Your task to perform on an android device: check storage Image 0: 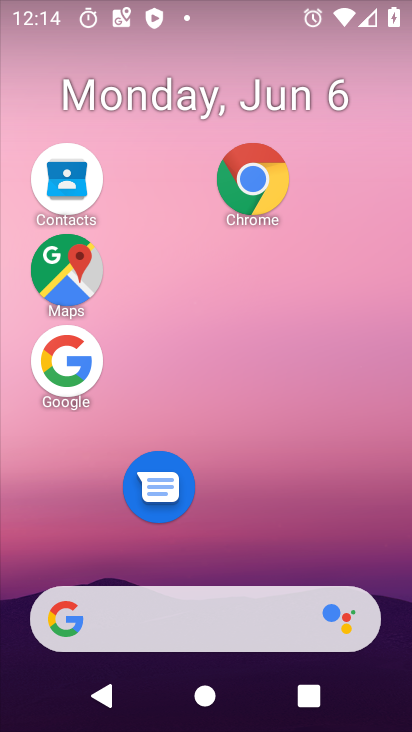
Step 0: drag from (266, 608) to (270, 105)
Your task to perform on an android device: check storage Image 1: 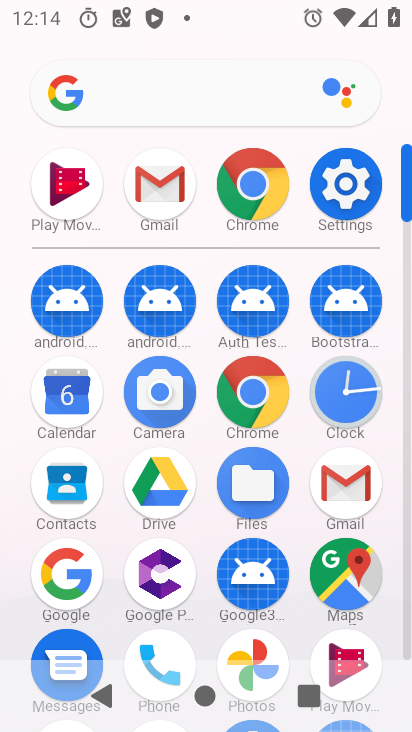
Step 1: drag from (282, 511) to (252, 301)
Your task to perform on an android device: check storage Image 2: 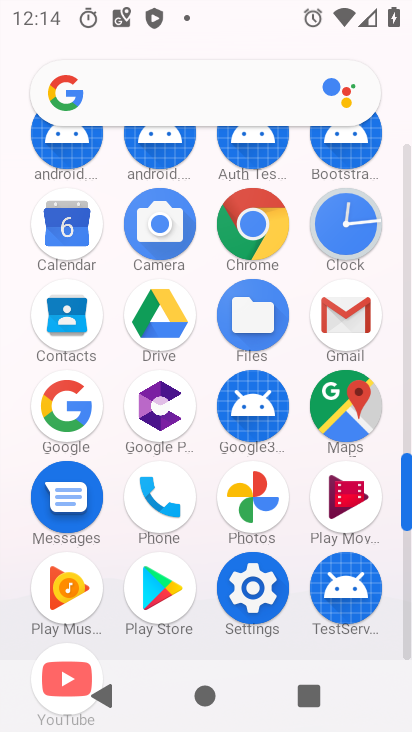
Step 2: click (266, 592)
Your task to perform on an android device: check storage Image 3: 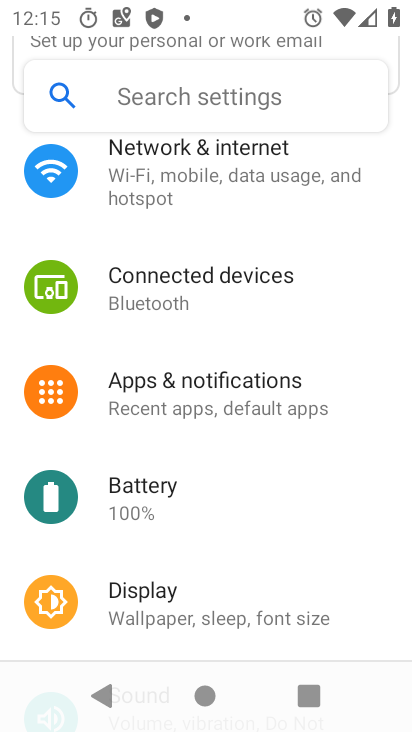
Step 3: drag from (223, 501) to (226, 185)
Your task to perform on an android device: check storage Image 4: 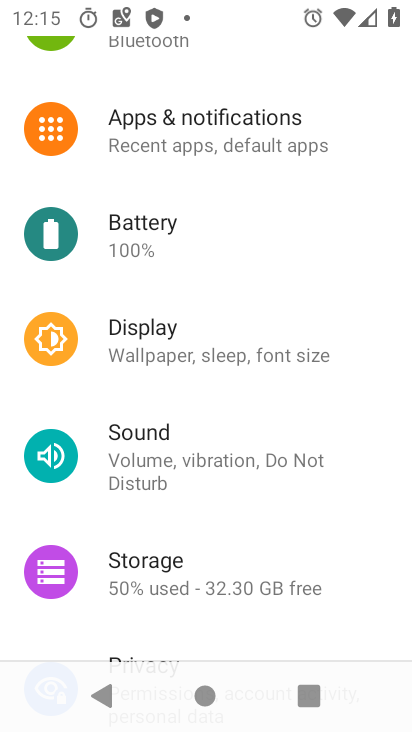
Step 4: click (230, 567)
Your task to perform on an android device: check storage Image 5: 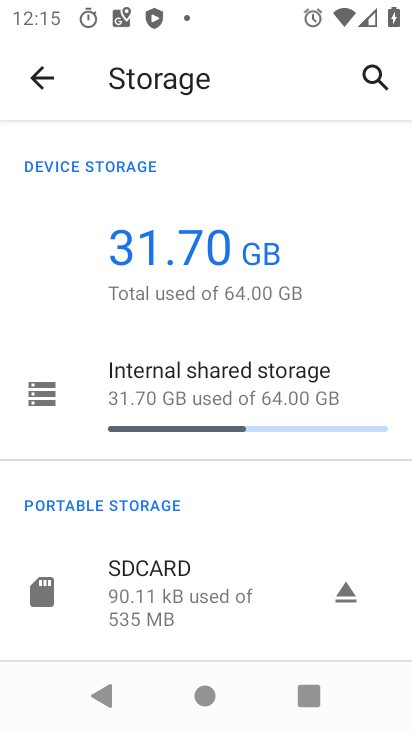
Step 5: click (277, 392)
Your task to perform on an android device: check storage Image 6: 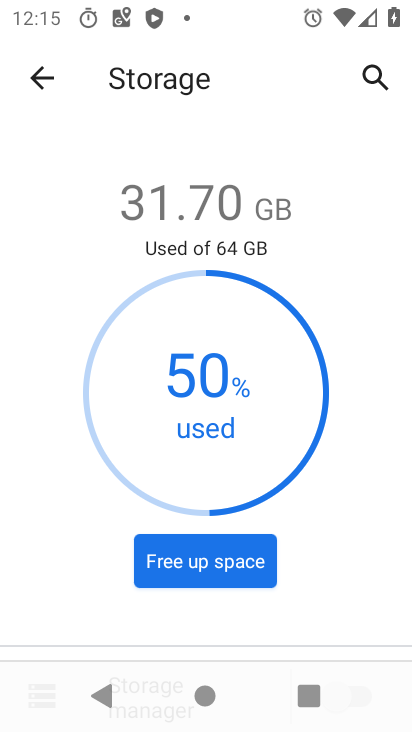
Step 6: task complete